Your task to perform on an android device: Open Amazon Image 0: 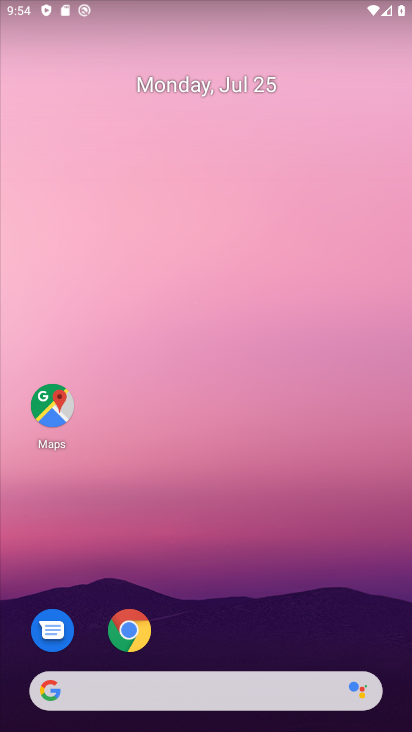
Step 0: drag from (215, 659) to (351, 44)
Your task to perform on an android device: Open Amazon Image 1: 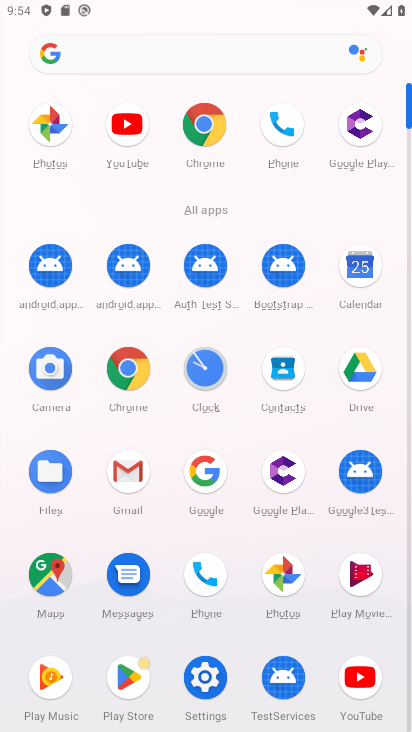
Step 1: click (125, 376)
Your task to perform on an android device: Open Amazon Image 2: 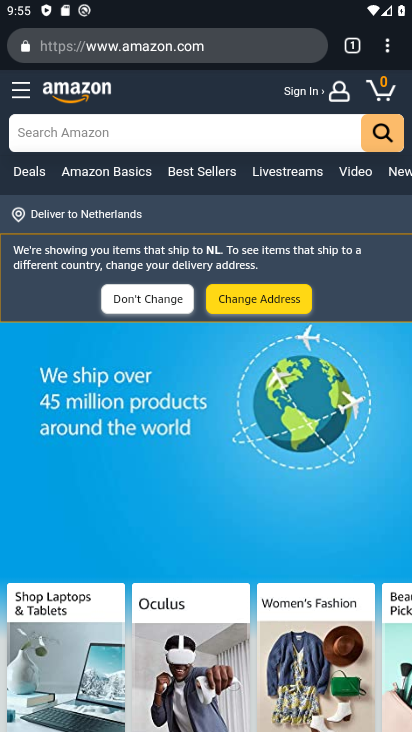
Step 2: task complete